Your task to perform on an android device: Turn off the flashlight Image 0: 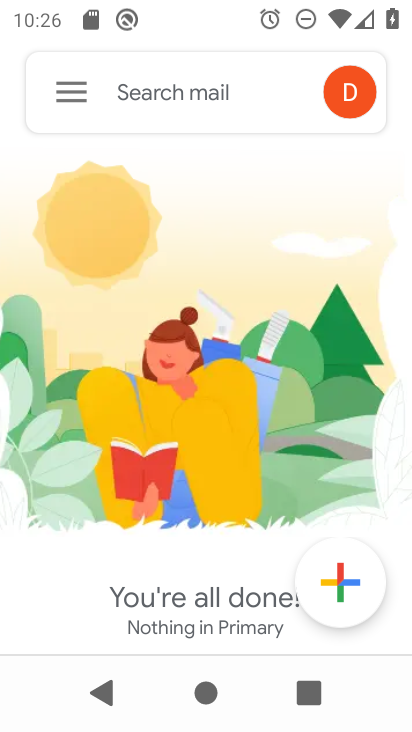
Step 0: drag from (215, 20) to (107, 534)
Your task to perform on an android device: Turn off the flashlight Image 1: 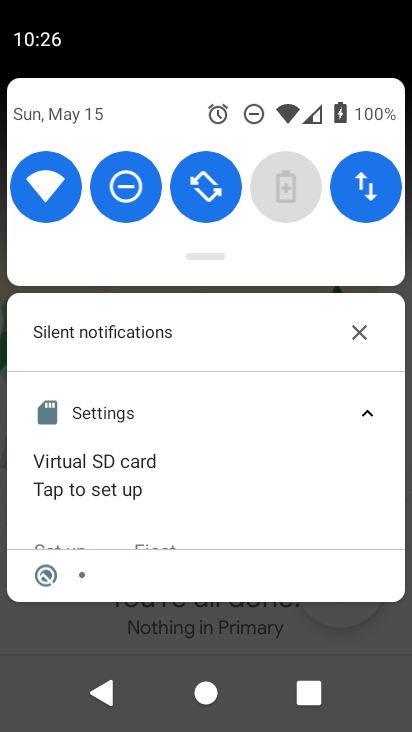
Step 1: drag from (194, 134) to (131, 687)
Your task to perform on an android device: Turn off the flashlight Image 2: 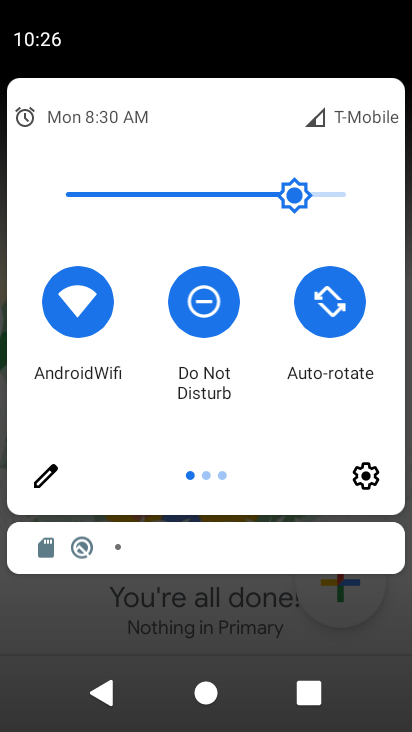
Step 2: click (358, 498)
Your task to perform on an android device: Turn off the flashlight Image 3: 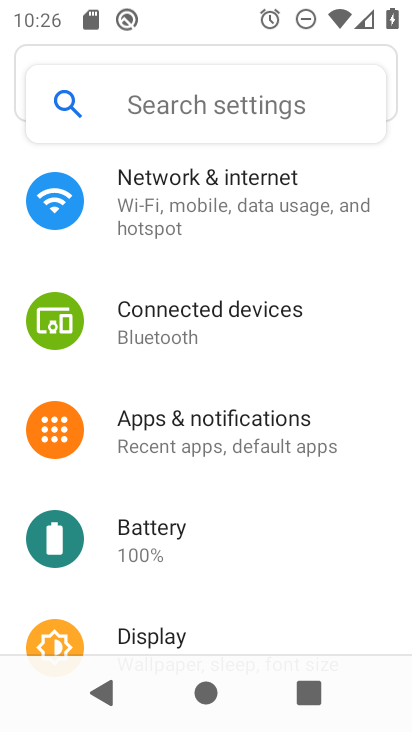
Step 3: task complete